Your task to perform on an android device: Do I have any events today? Image 0: 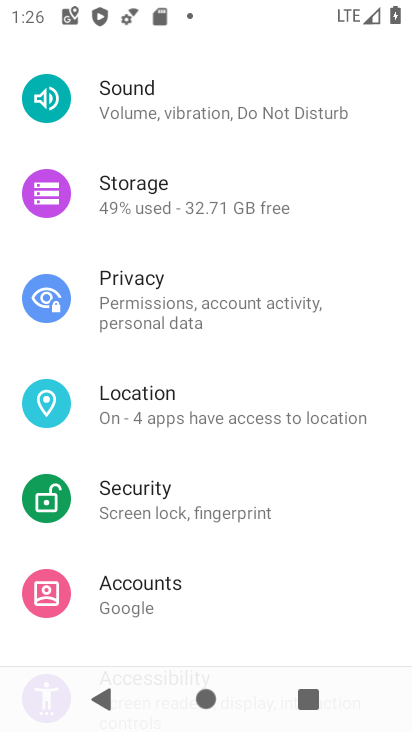
Step 0: press home button
Your task to perform on an android device: Do I have any events today? Image 1: 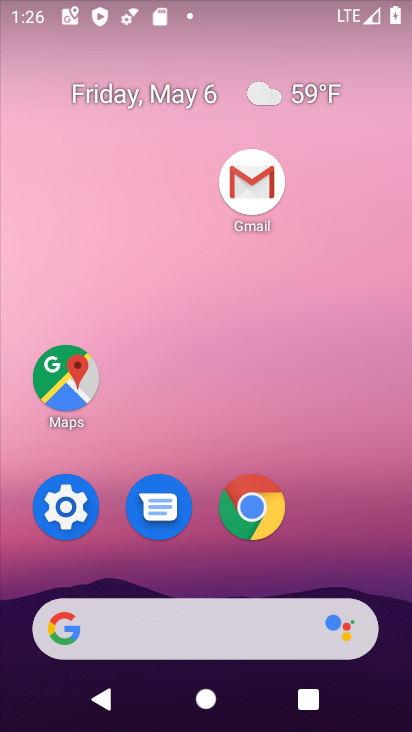
Step 1: drag from (342, 520) to (299, 93)
Your task to perform on an android device: Do I have any events today? Image 2: 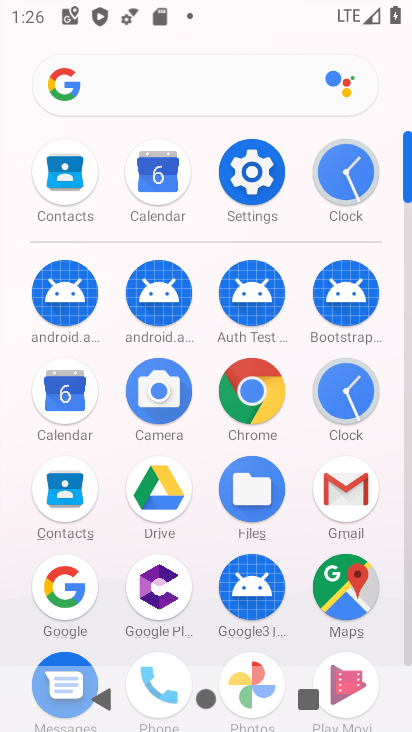
Step 2: click (63, 398)
Your task to perform on an android device: Do I have any events today? Image 3: 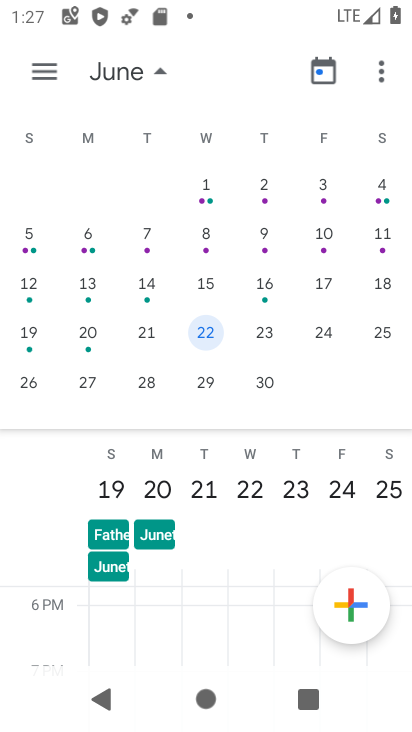
Step 3: click (45, 62)
Your task to perform on an android device: Do I have any events today? Image 4: 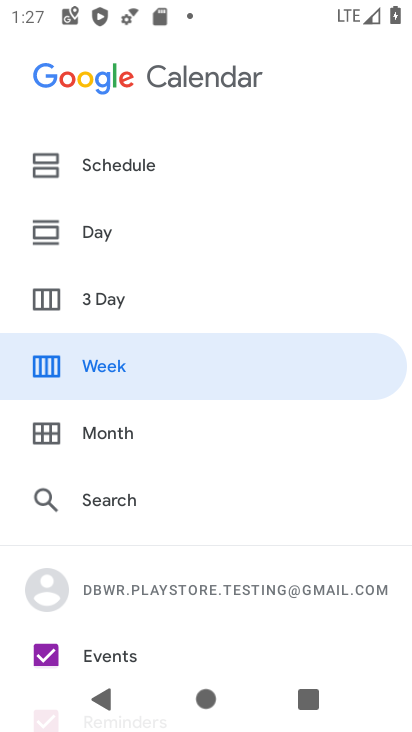
Step 4: click (92, 224)
Your task to perform on an android device: Do I have any events today? Image 5: 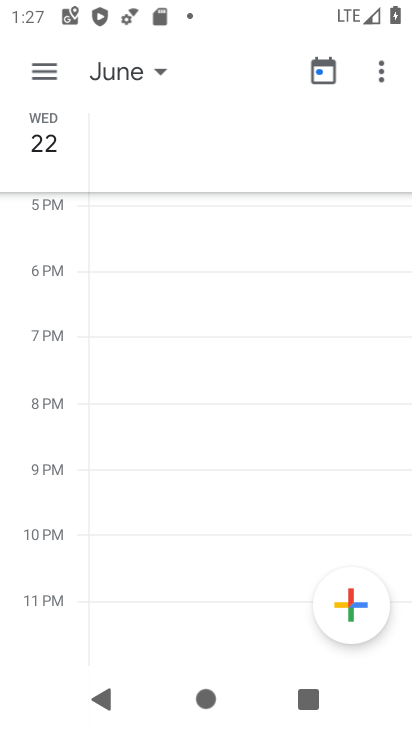
Step 5: click (153, 67)
Your task to perform on an android device: Do I have any events today? Image 6: 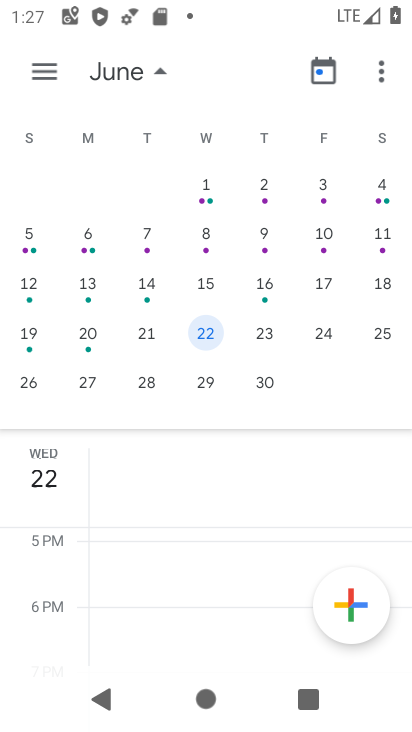
Step 6: drag from (41, 246) to (379, 242)
Your task to perform on an android device: Do I have any events today? Image 7: 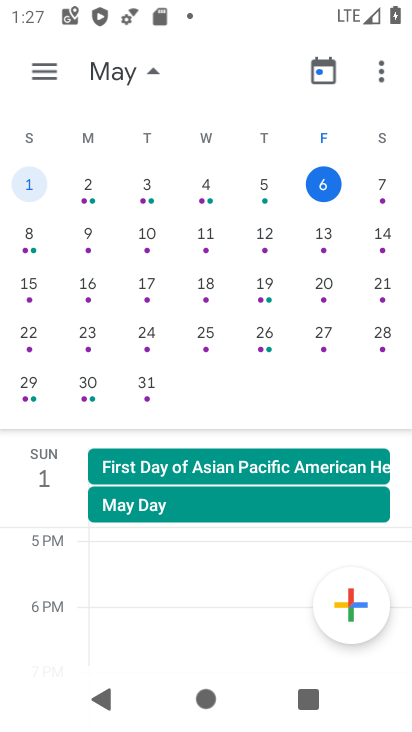
Step 7: click (190, 289)
Your task to perform on an android device: Do I have any events today? Image 8: 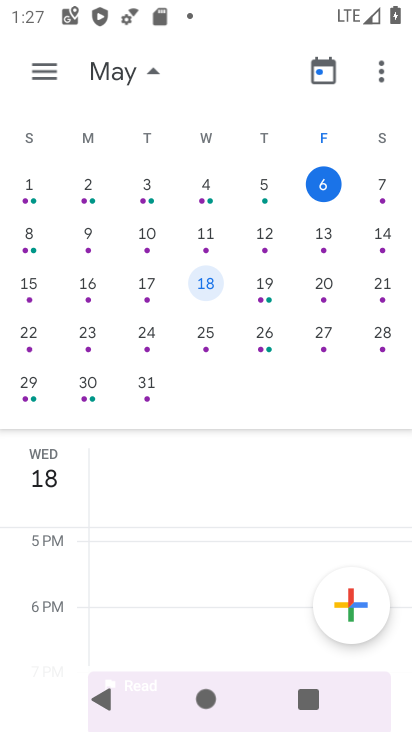
Step 8: drag from (163, 566) to (169, 356)
Your task to perform on an android device: Do I have any events today? Image 9: 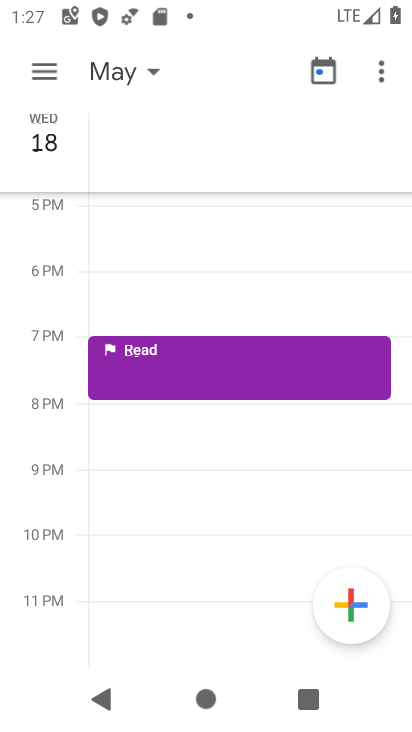
Step 9: drag from (190, 198) to (168, 563)
Your task to perform on an android device: Do I have any events today? Image 10: 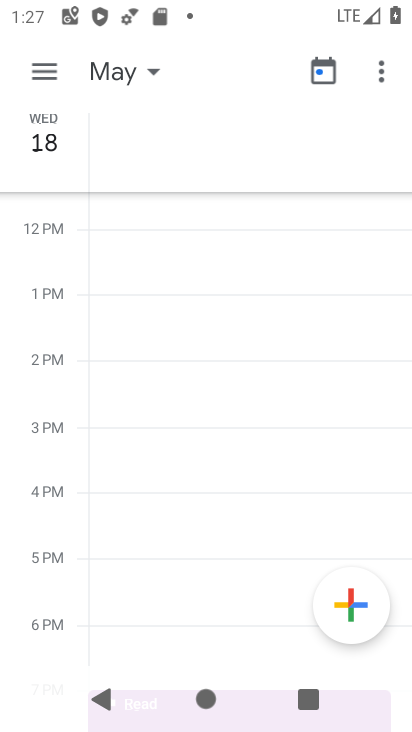
Step 10: drag from (269, 268) to (217, 701)
Your task to perform on an android device: Do I have any events today? Image 11: 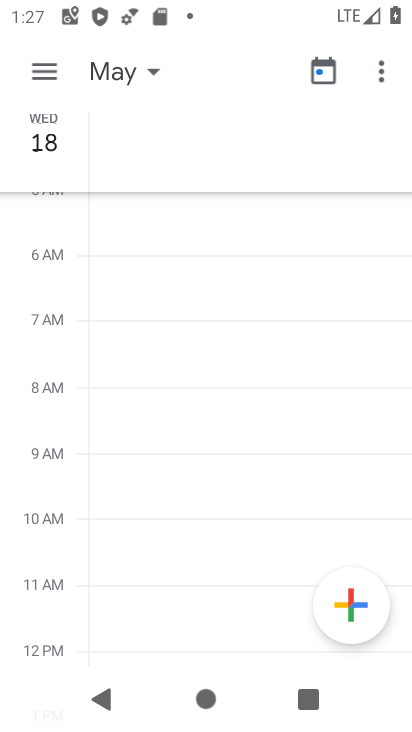
Step 11: drag from (216, 255) to (184, 661)
Your task to perform on an android device: Do I have any events today? Image 12: 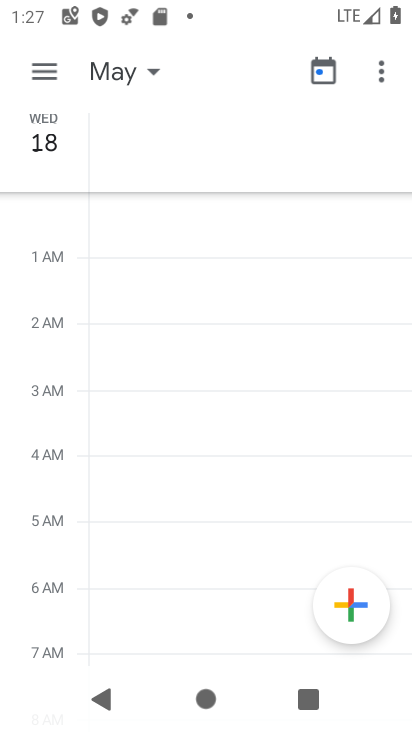
Step 12: drag from (185, 294) to (175, 569)
Your task to perform on an android device: Do I have any events today? Image 13: 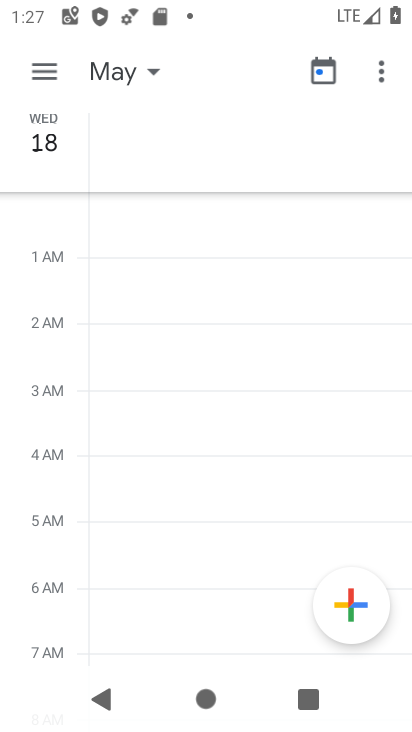
Step 13: click (146, 68)
Your task to perform on an android device: Do I have any events today? Image 14: 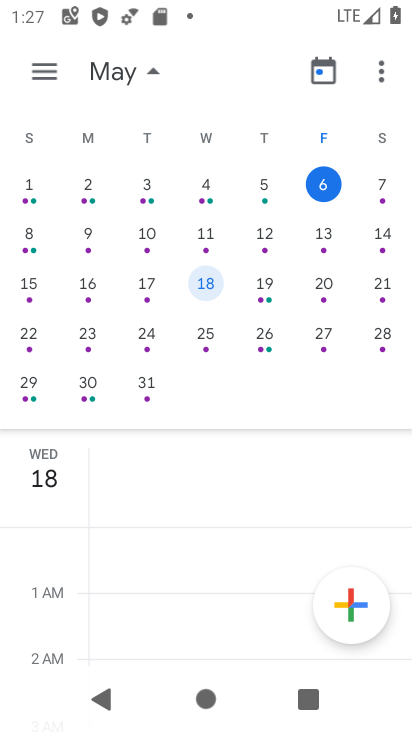
Step 14: click (316, 185)
Your task to perform on an android device: Do I have any events today? Image 15: 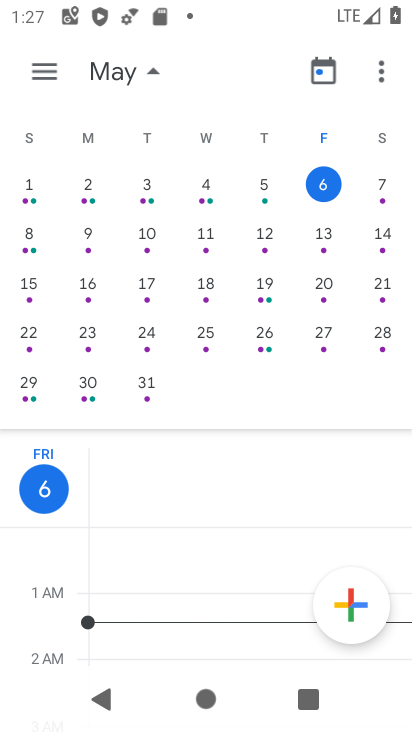
Step 15: task complete